Your task to perform on an android device: turn on notifications settings in the gmail app Image 0: 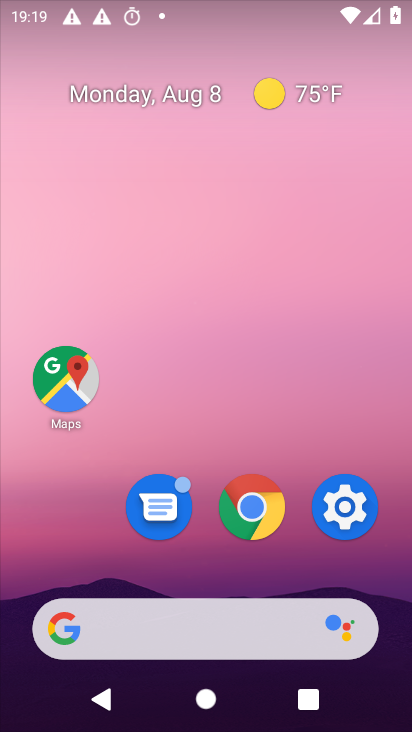
Step 0: drag from (243, 677) to (192, 156)
Your task to perform on an android device: turn on notifications settings in the gmail app Image 1: 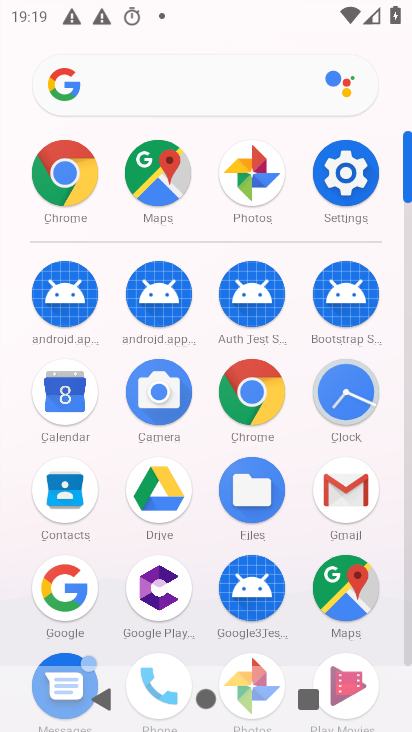
Step 1: click (371, 502)
Your task to perform on an android device: turn on notifications settings in the gmail app Image 2: 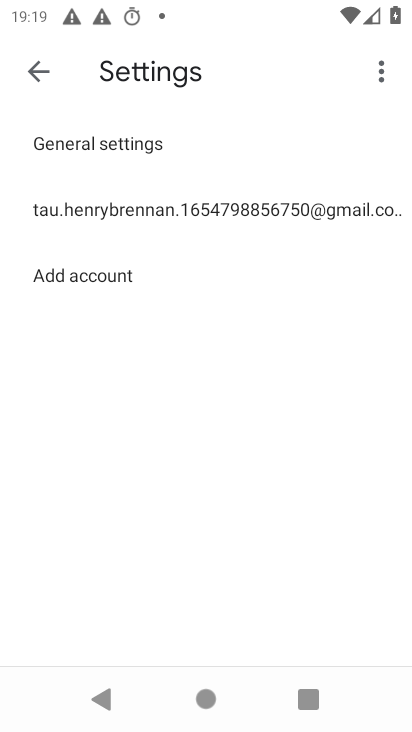
Step 2: click (173, 213)
Your task to perform on an android device: turn on notifications settings in the gmail app Image 3: 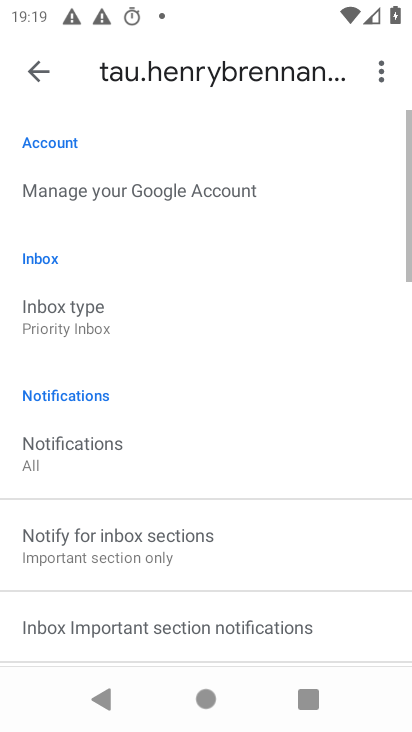
Step 3: click (125, 442)
Your task to perform on an android device: turn on notifications settings in the gmail app Image 4: 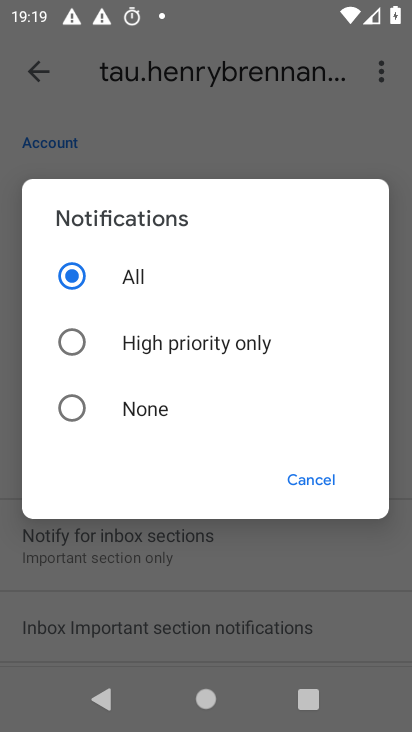
Step 4: task complete